Your task to perform on an android device: turn notification dots off Image 0: 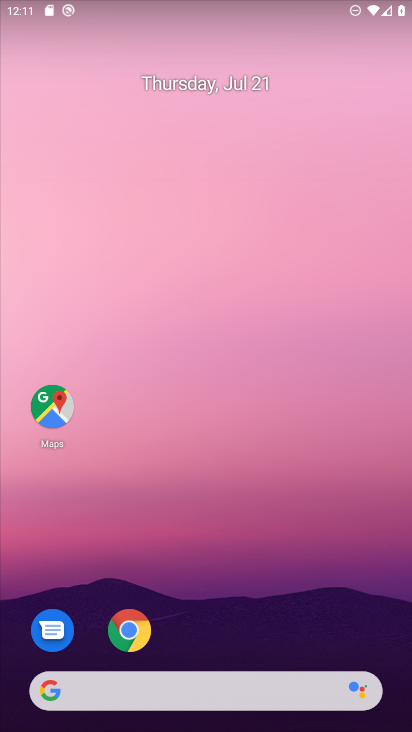
Step 0: drag from (168, 652) to (227, 185)
Your task to perform on an android device: turn notification dots off Image 1: 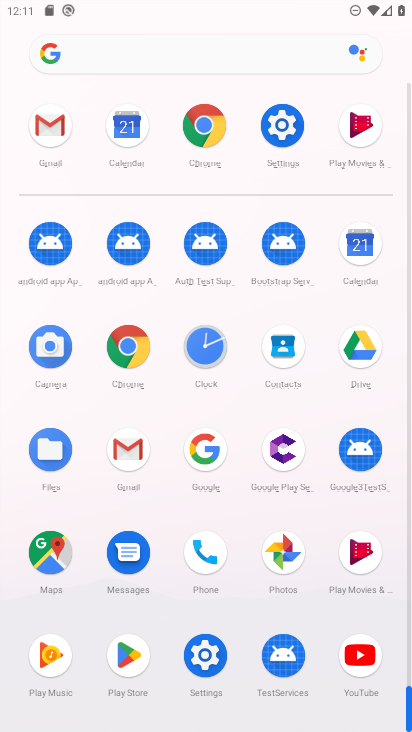
Step 1: click (270, 134)
Your task to perform on an android device: turn notification dots off Image 2: 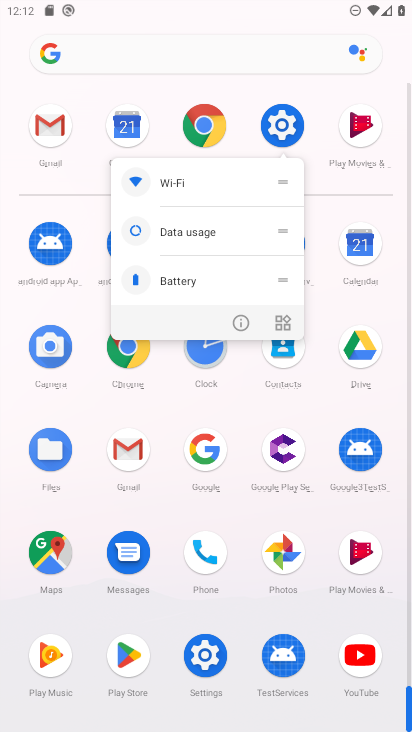
Step 2: click (241, 323)
Your task to perform on an android device: turn notification dots off Image 3: 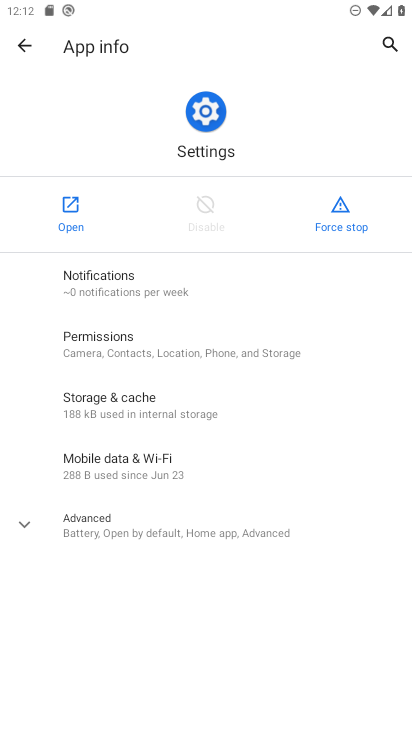
Step 3: click (70, 214)
Your task to perform on an android device: turn notification dots off Image 4: 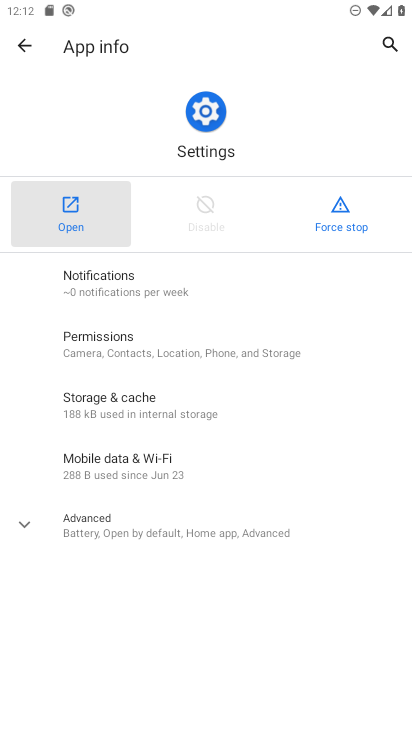
Step 4: click (70, 214)
Your task to perform on an android device: turn notification dots off Image 5: 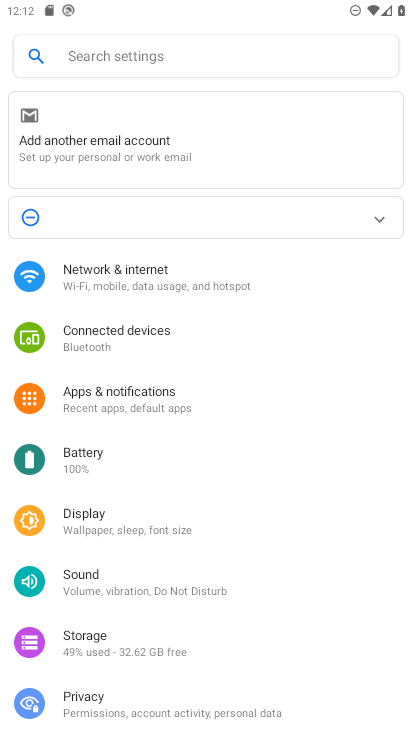
Step 5: click (126, 400)
Your task to perform on an android device: turn notification dots off Image 6: 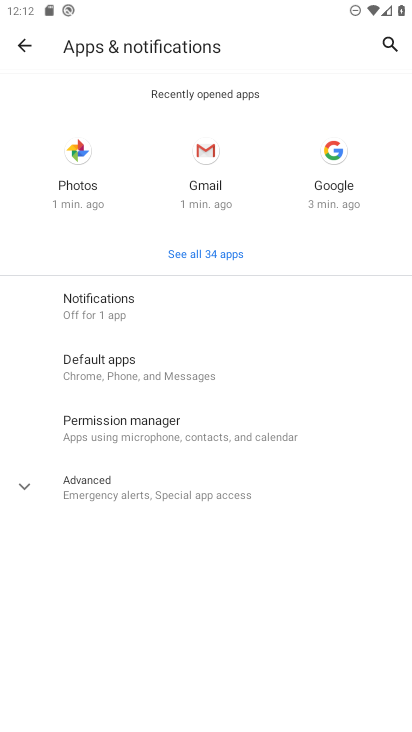
Step 6: click (134, 307)
Your task to perform on an android device: turn notification dots off Image 7: 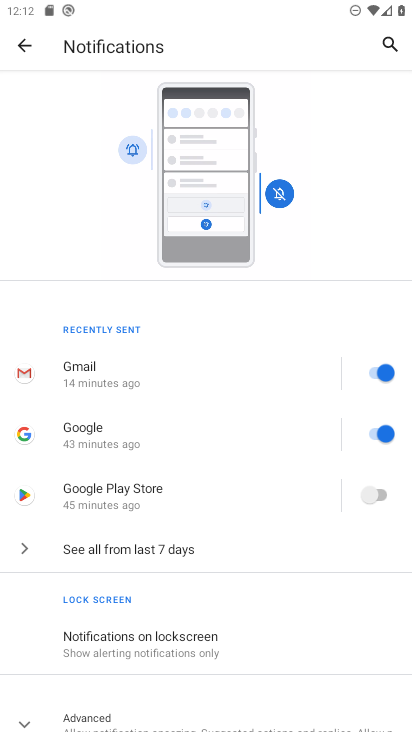
Step 7: drag from (221, 638) to (258, 308)
Your task to perform on an android device: turn notification dots off Image 8: 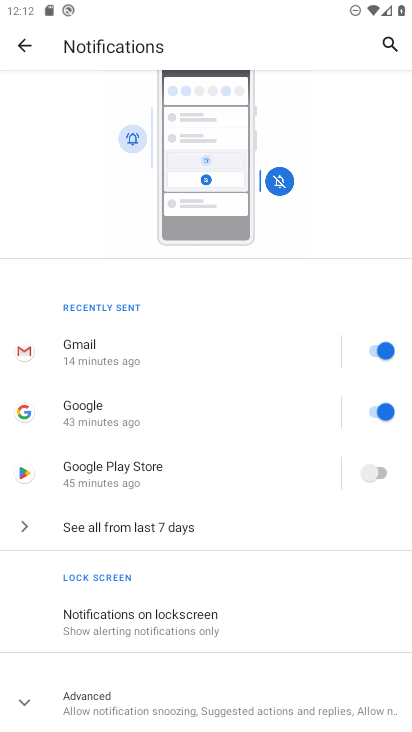
Step 8: click (118, 700)
Your task to perform on an android device: turn notification dots off Image 9: 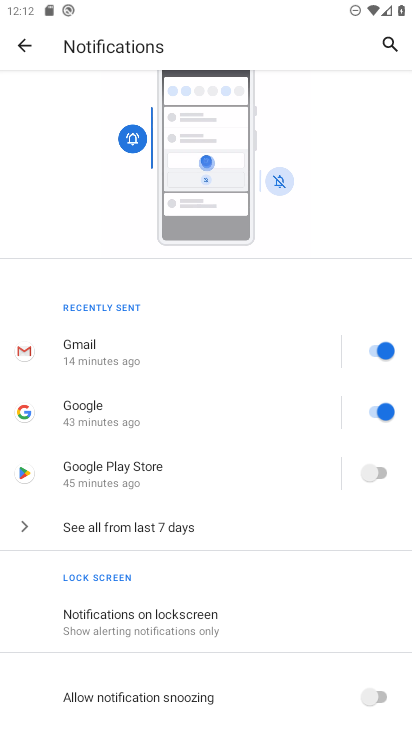
Step 9: drag from (225, 675) to (291, 369)
Your task to perform on an android device: turn notification dots off Image 10: 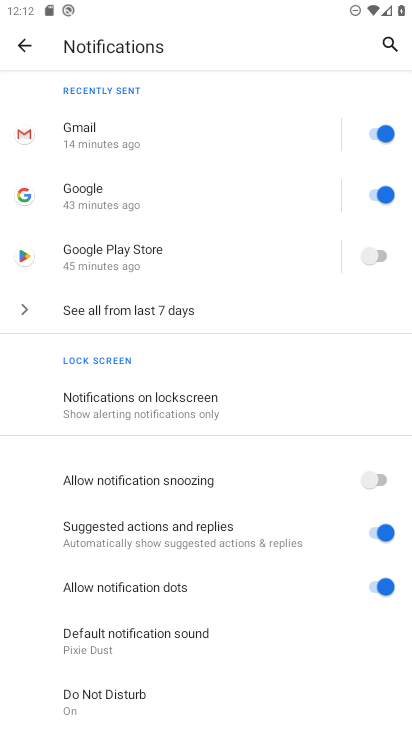
Step 10: click (374, 587)
Your task to perform on an android device: turn notification dots off Image 11: 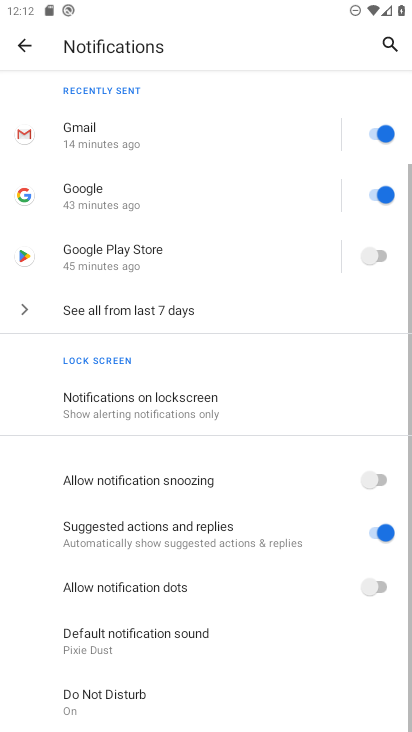
Step 11: task complete